Your task to perform on an android device: set an alarm Image 0: 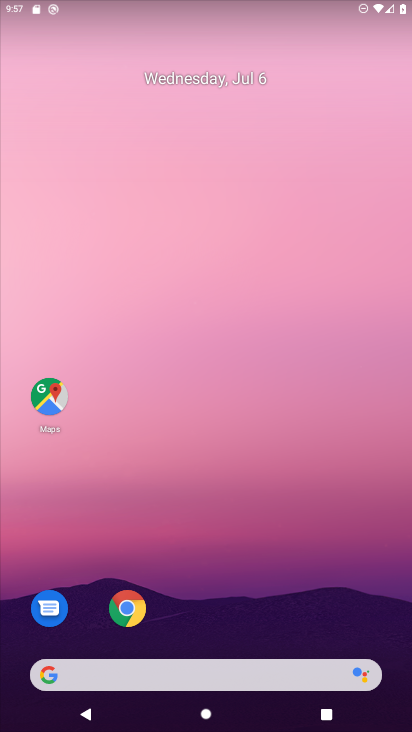
Step 0: drag from (185, 649) to (179, 127)
Your task to perform on an android device: set an alarm Image 1: 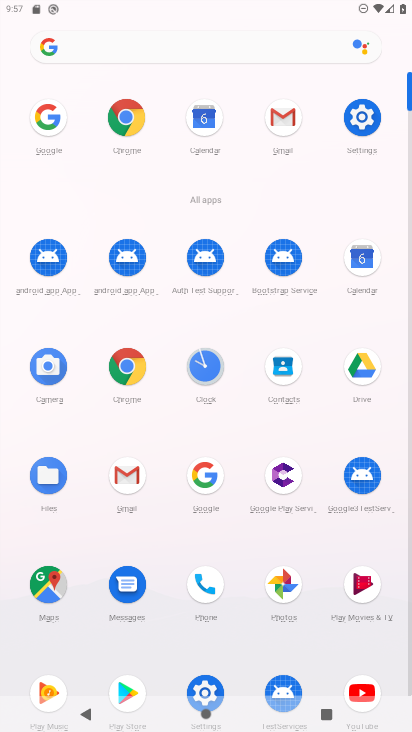
Step 1: click (196, 377)
Your task to perform on an android device: set an alarm Image 2: 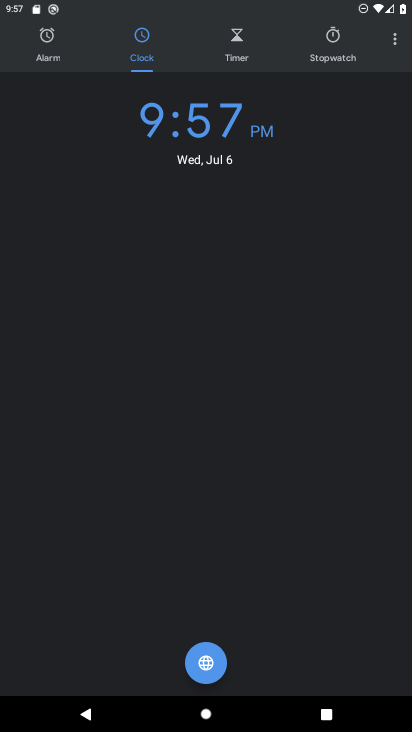
Step 2: click (40, 59)
Your task to perform on an android device: set an alarm Image 3: 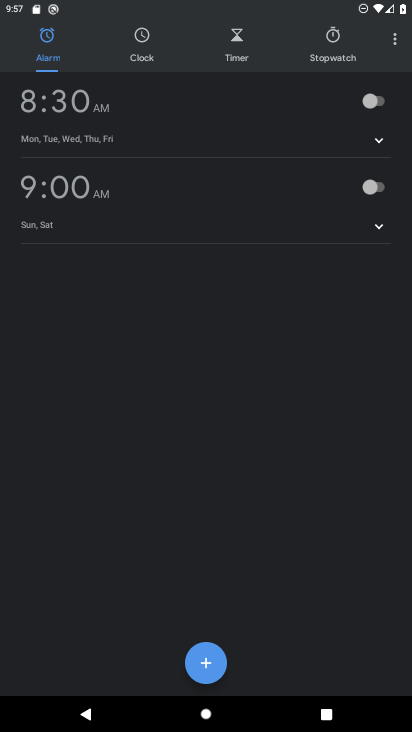
Step 3: click (201, 663)
Your task to perform on an android device: set an alarm Image 4: 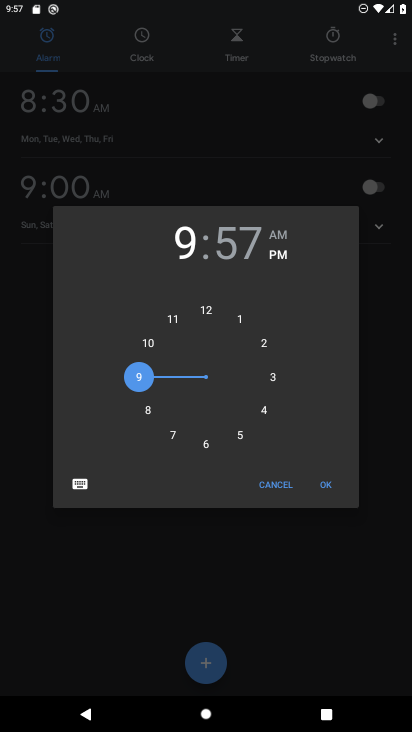
Step 4: click (171, 325)
Your task to perform on an android device: set an alarm Image 5: 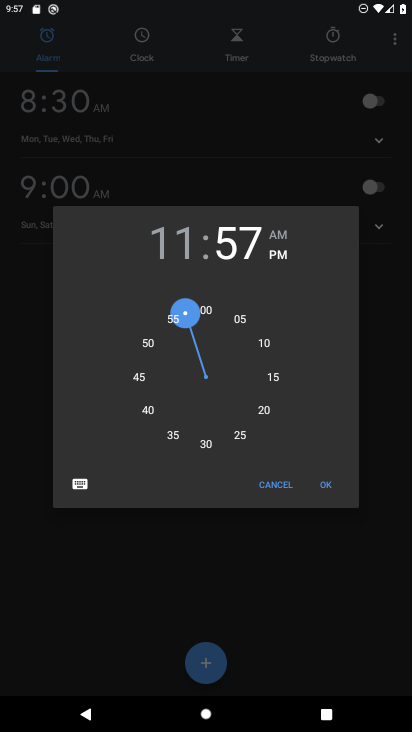
Step 5: click (206, 445)
Your task to perform on an android device: set an alarm Image 6: 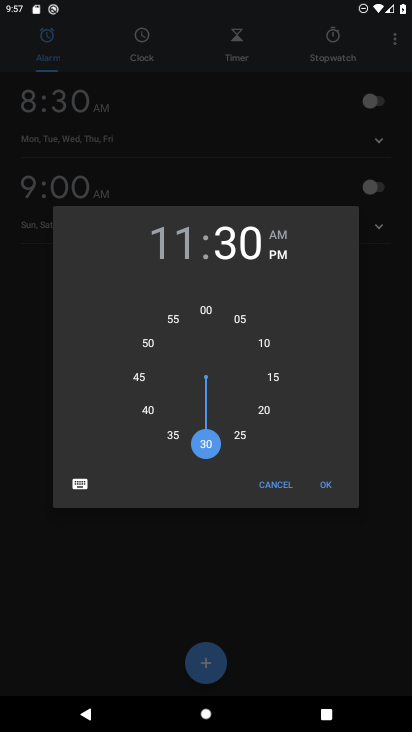
Step 6: click (280, 233)
Your task to perform on an android device: set an alarm Image 7: 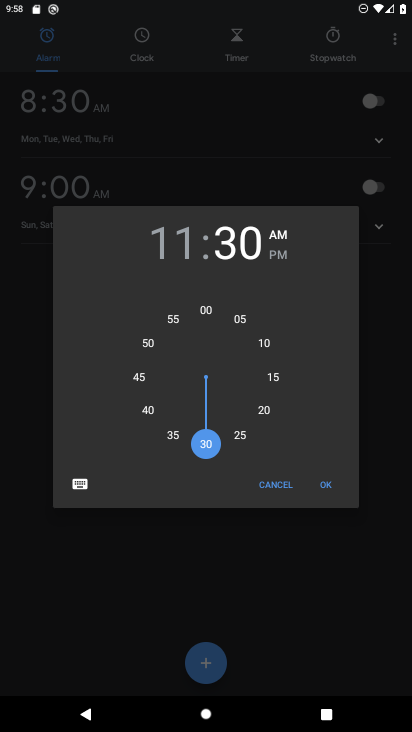
Step 7: click (326, 488)
Your task to perform on an android device: set an alarm Image 8: 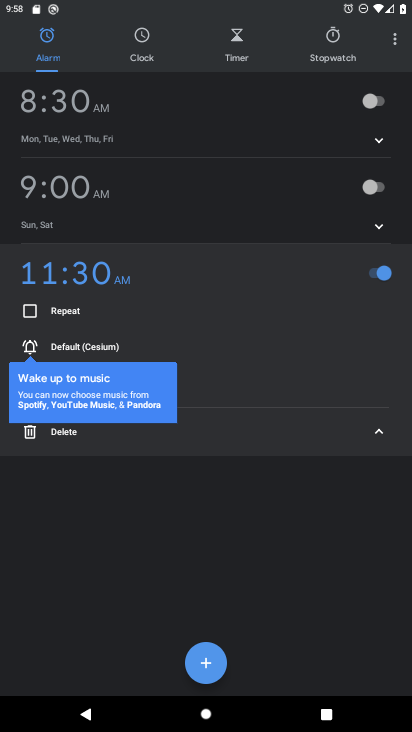
Step 8: task complete